Your task to perform on an android device: change the clock style Image 0: 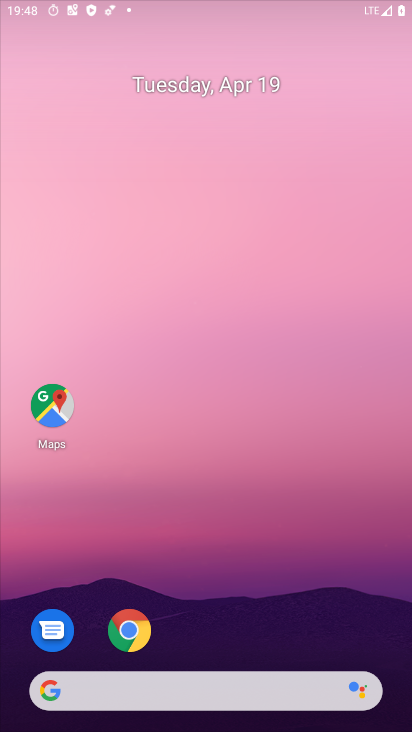
Step 0: drag from (202, 664) to (148, 36)
Your task to perform on an android device: change the clock style Image 1: 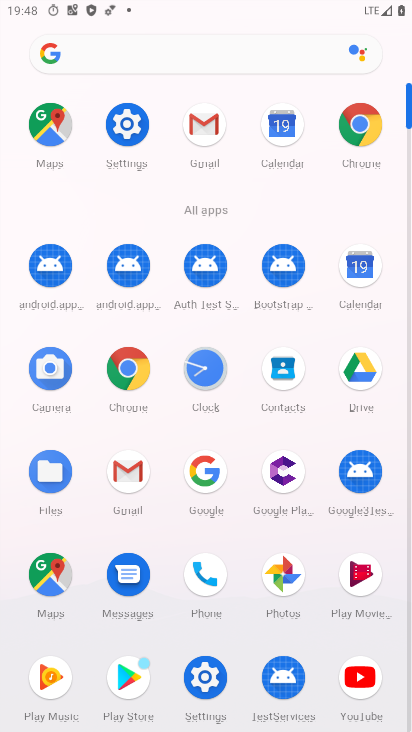
Step 1: click (193, 389)
Your task to perform on an android device: change the clock style Image 2: 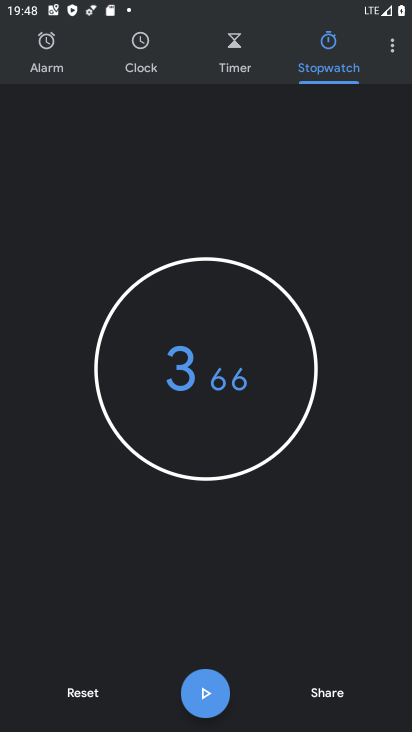
Step 2: click (397, 48)
Your task to perform on an android device: change the clock style Image 3: 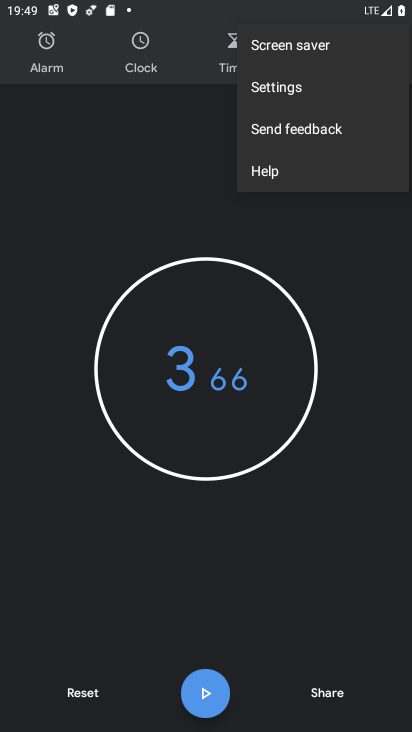
Step 3: click (297, 86)
Your task to perform on an android device: change the clock style Image 4: 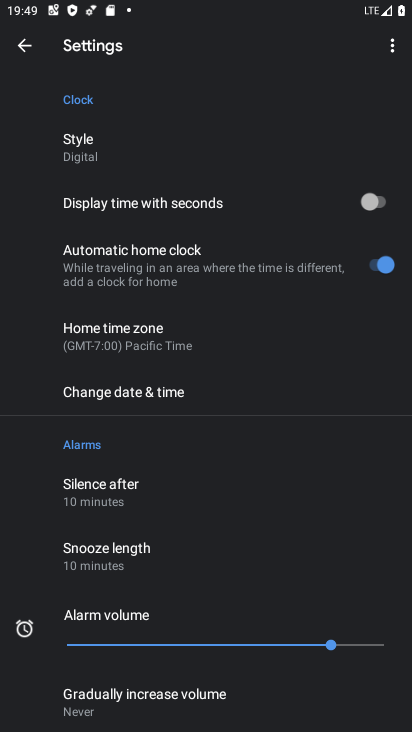
Step 4: click (83, 137)
Your task to perform on an android device: change the clock style Image 5: 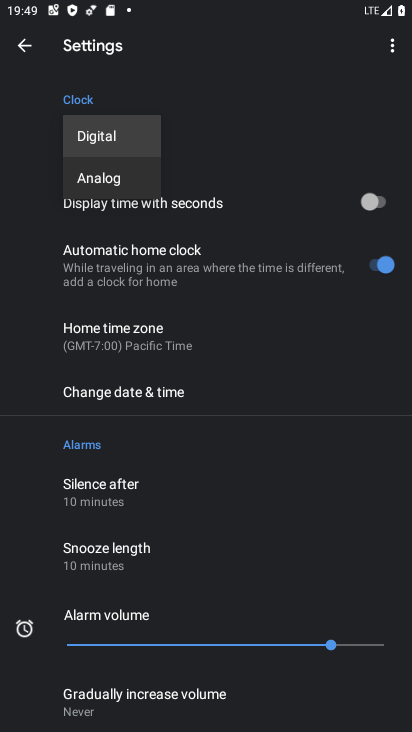
Step 5: click (90, 186)
Your task to perform on an android device: change the clock style Image 6: 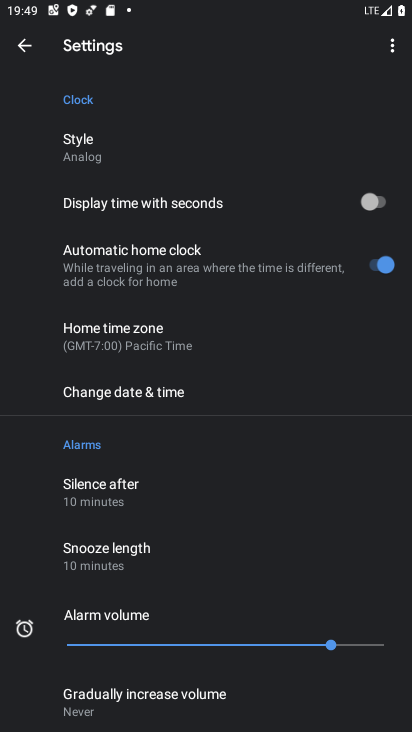
Step 6: task complete